Your task to perform on an android device: uninstall "VLC for Android" Image 0: 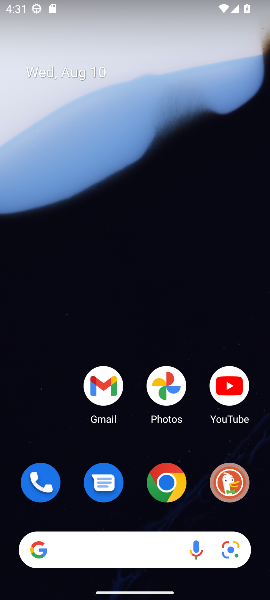
Step 0: drag from (136, 457) to (147, 11)
Your task to perform on an android device: uninstall "VLC for Android" Image 1: 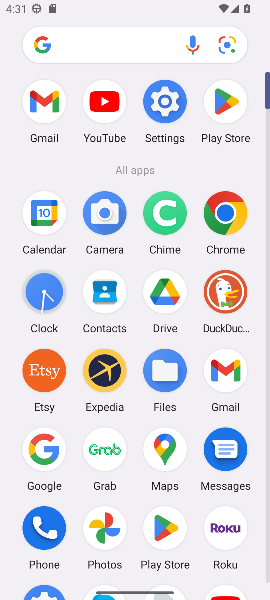
Step 1: click (163, 525)
Your task to perform on an android device: uninstall "VLC for Android" Image 2: 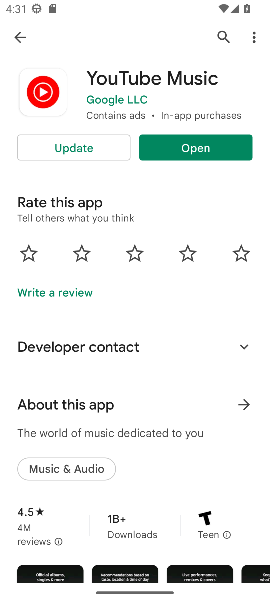
Step 2: click (224, 34)
Your task to perform on an android device: uninstall "VLC for Android" Image 3: 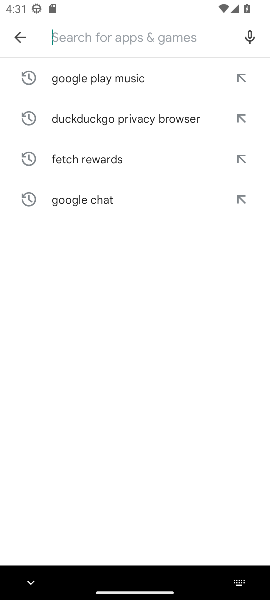
Step 3: type "VLC for Android"
Your task to perform on an android device: uninstall "VLC for Android" Image 4: 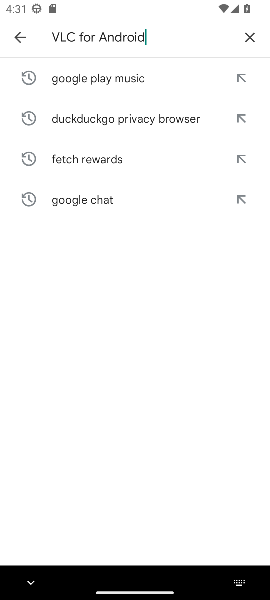
Step 4: type ""
Your task to perform on an android device: uninstall "VLC for Android" Image 5: 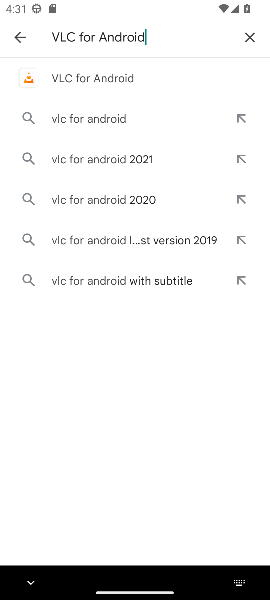
Step 5: click (101, 75)
Your task to perform on an android device: uninstall "VLC for Android" Image 6: 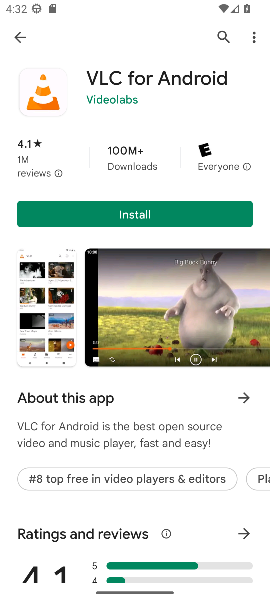
Step 6: task complete